Your task to perform on an android device: open app "Truecaller" (install if not already installed) and go to login screen Image 0: 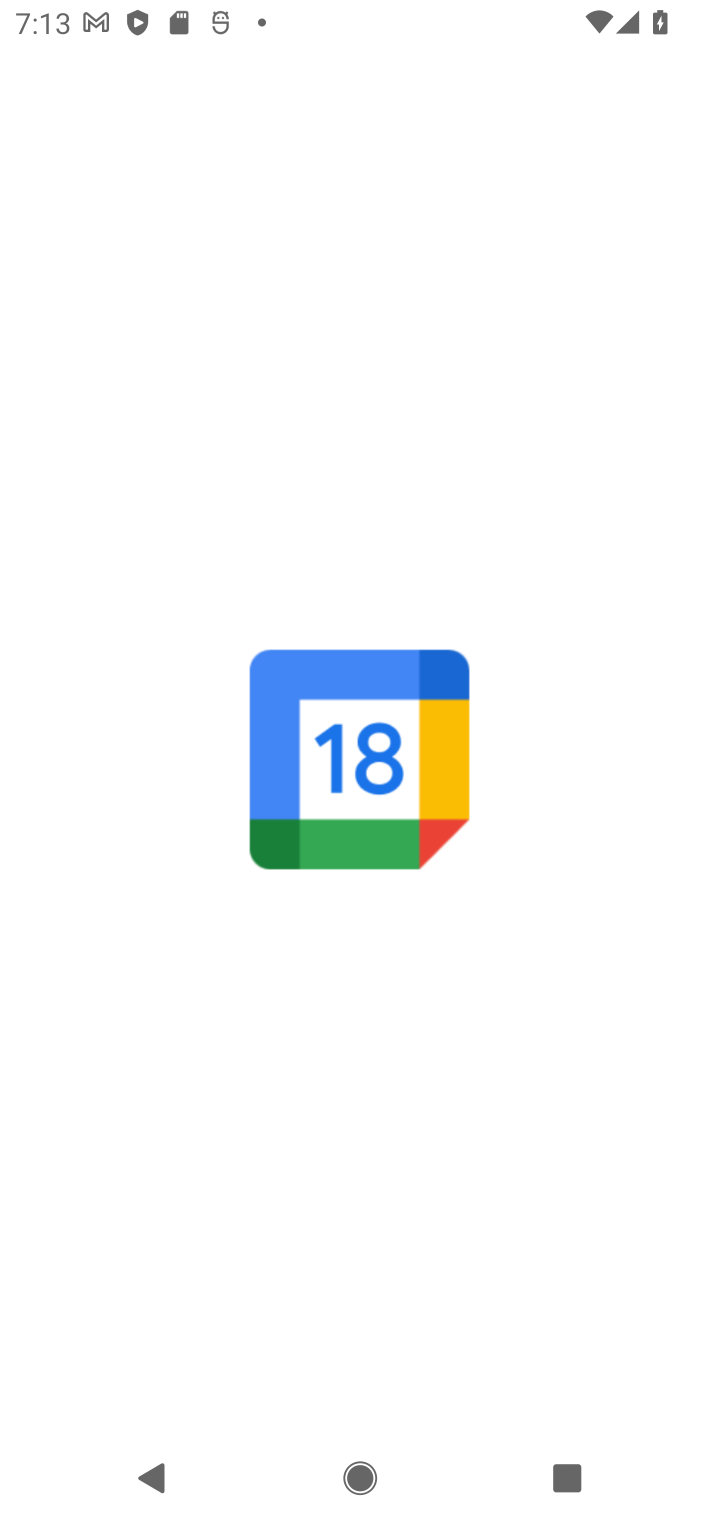
Step 0: press back button
Your task to perform on an android device: open app "Truecaller" (install if not already installed) and go to login screen Image 1: 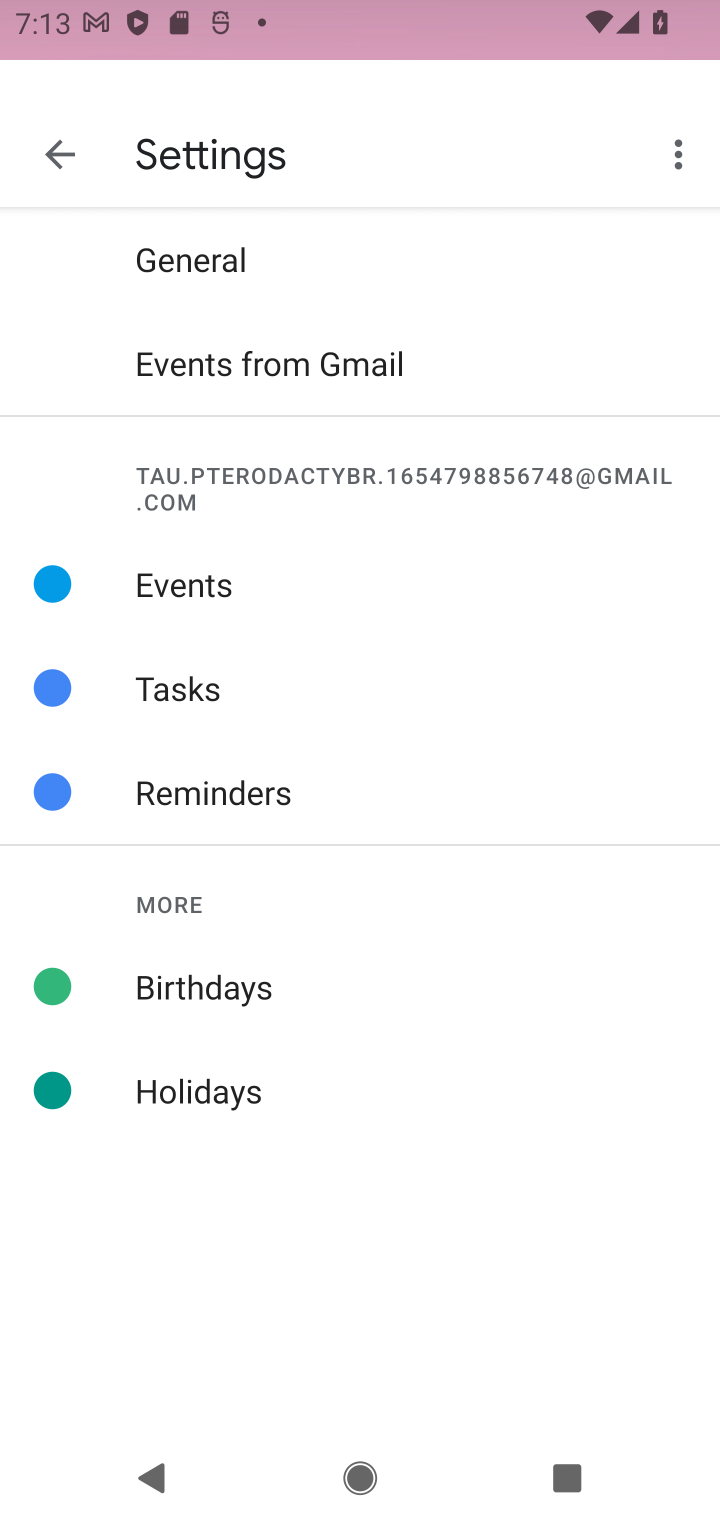
Step 1: press back button
Your task to perform on an android device: open app "Truecaller" (install if not already installed) and go to login screen Image 2: 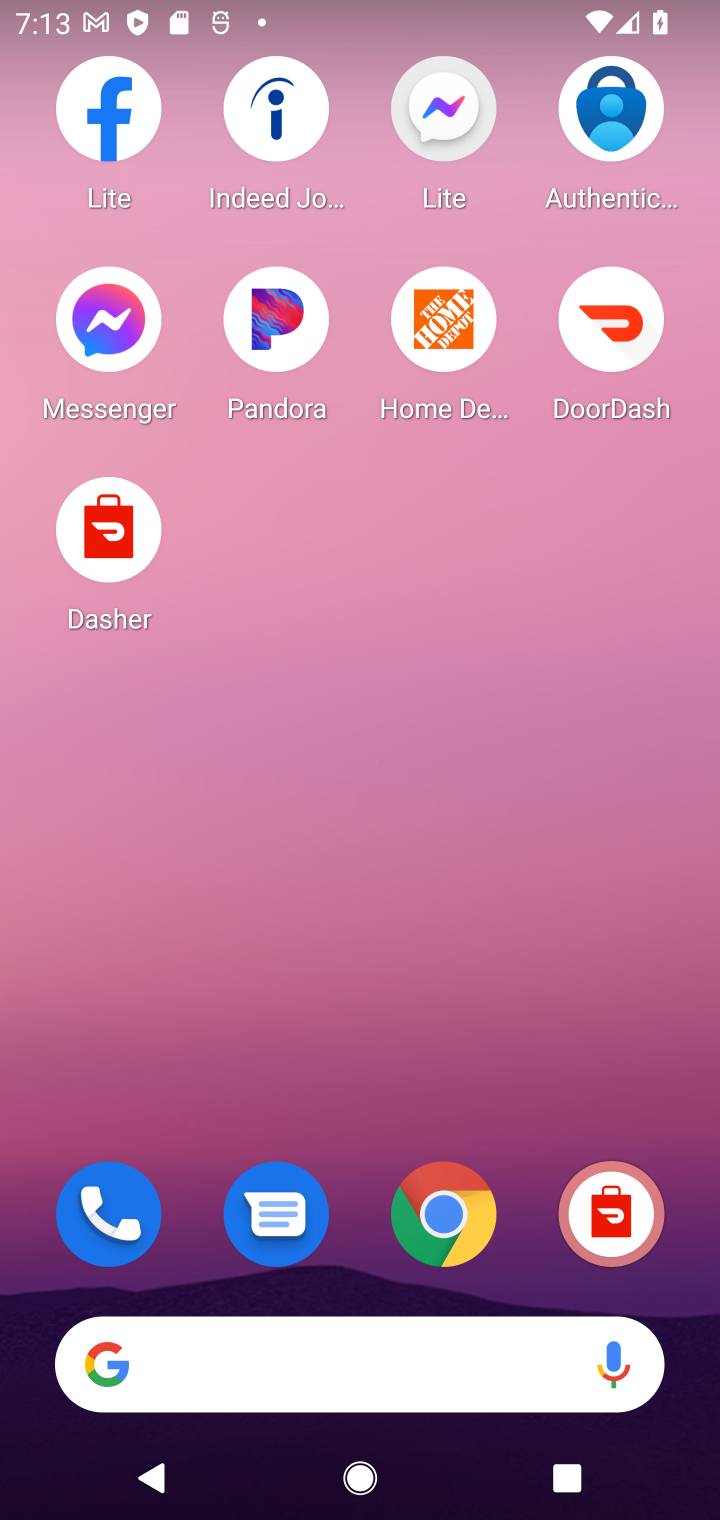
Step 2: drag from (368, 1034) to (333, 234)
Your task to perform on an android device: open app "Truecaller" (install if not already installed) and go to login screen Image 3: 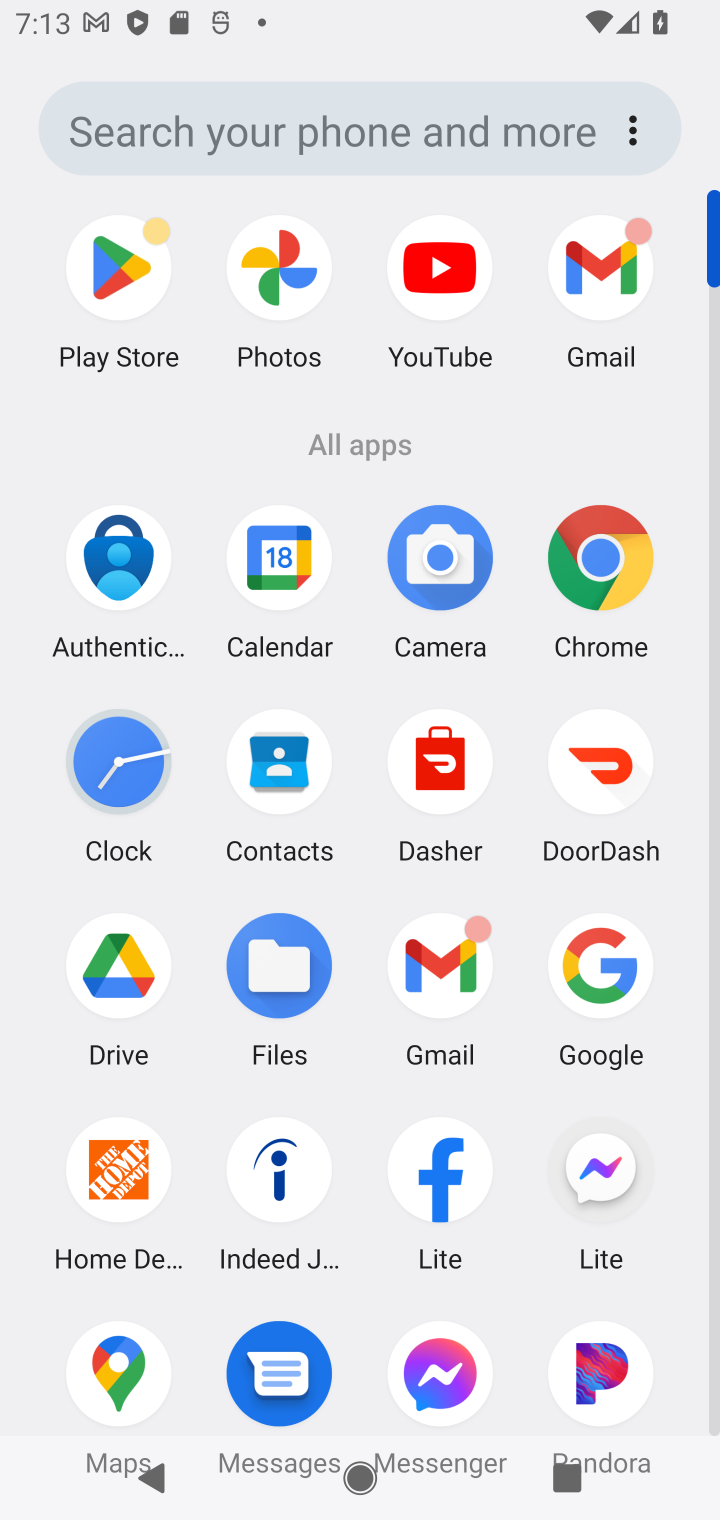
Step 3: click (124, 226)
Your task to perform on an android device: open app "Truecaller" (install if not already installed) and go to login screen Image 4: 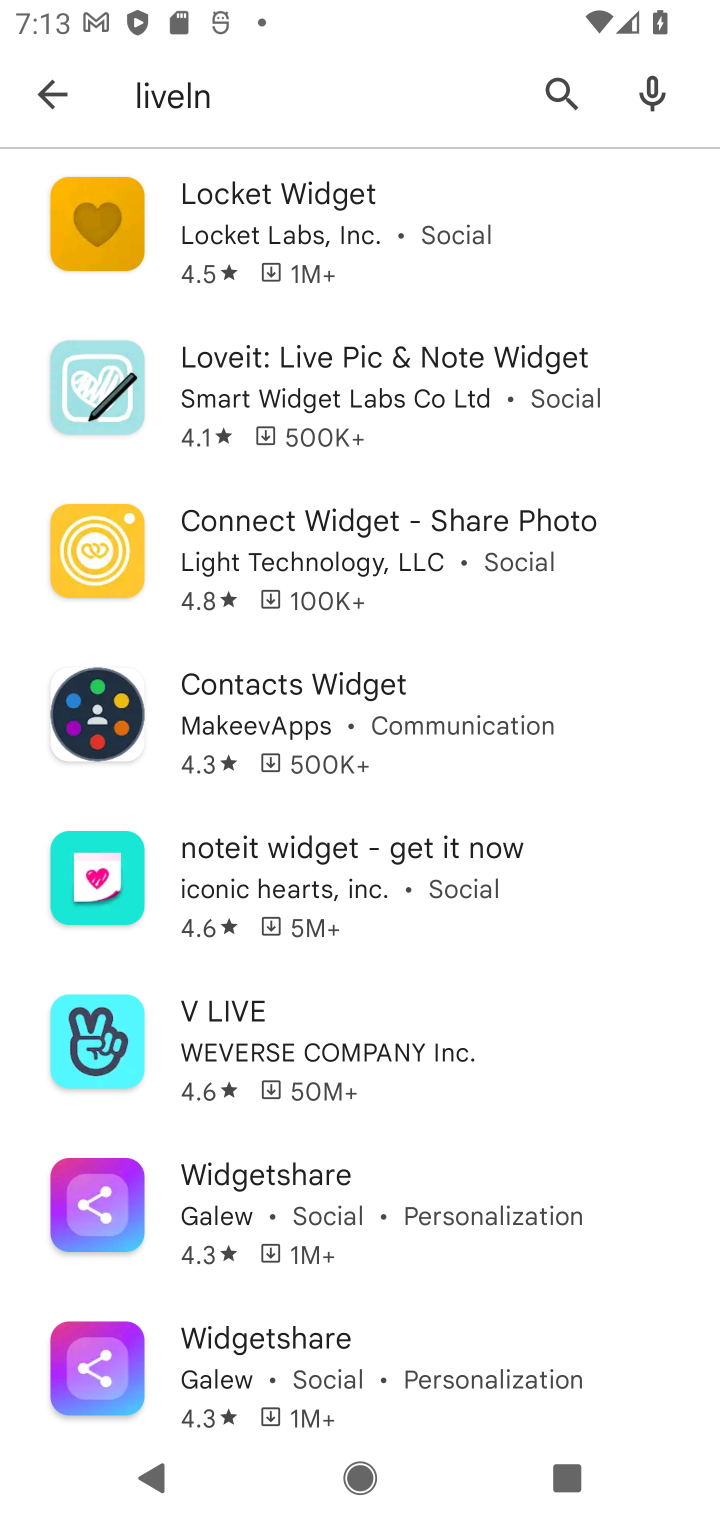
Step 4: click (569, 79)
Your task to perform on an android device: open app "Truecaller" (install if not already installed) and go to login screen Image 5: 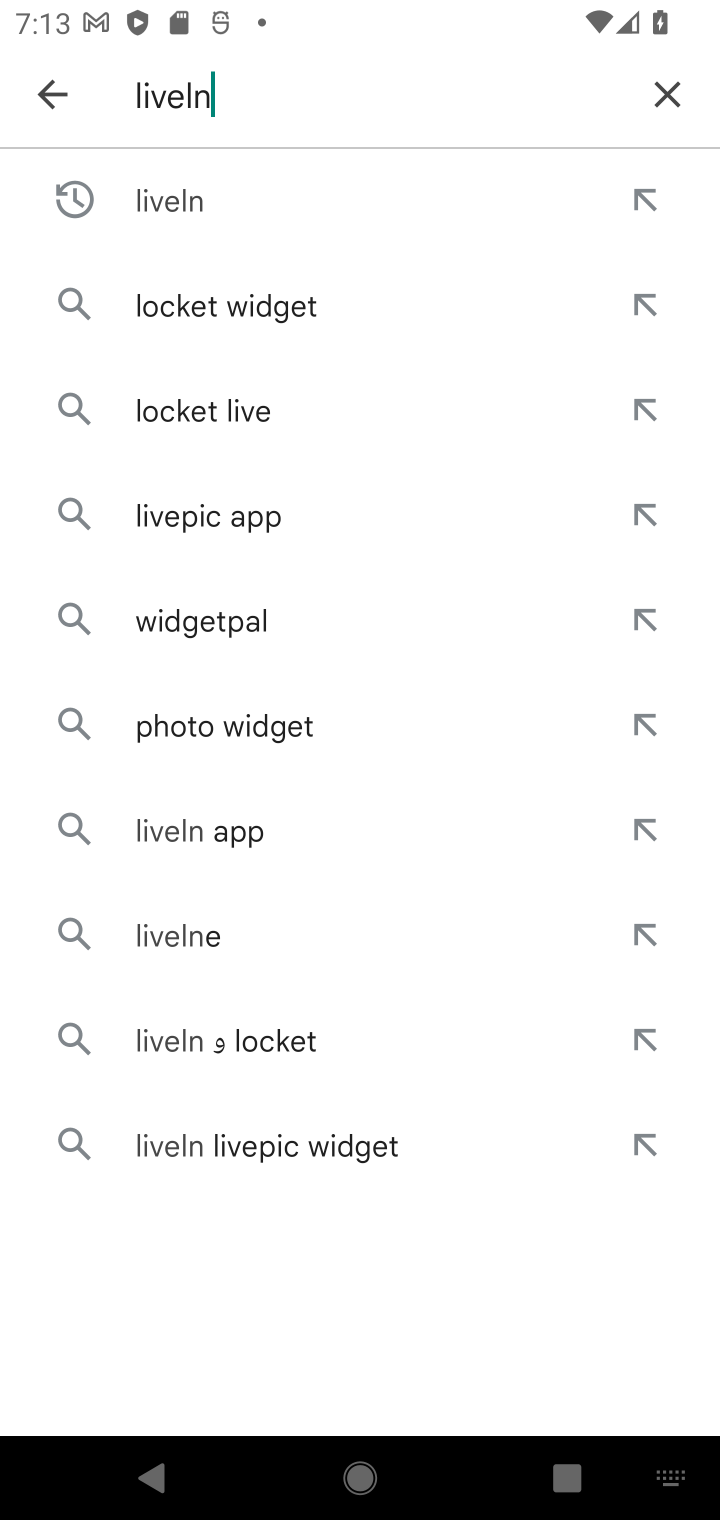
Step 5: click (665, 108)
Your task to perform on an android device: open app "Truecaller" (install if not already installed) and go to login screen Image 6: 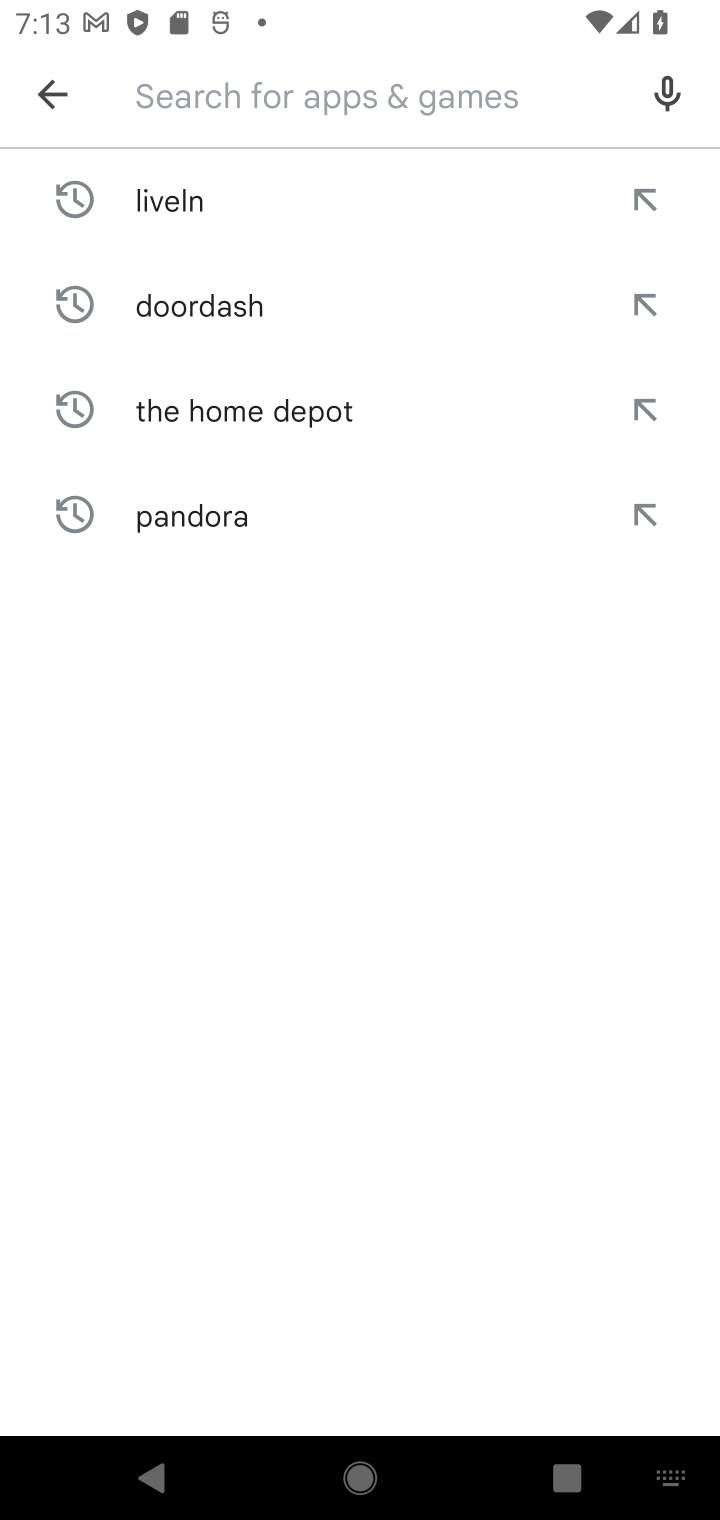
Step 6: click (426, 85)
Your task to perform on an android device: open app "Truecaller" (install if not already installed) and go to login screen Image 7: 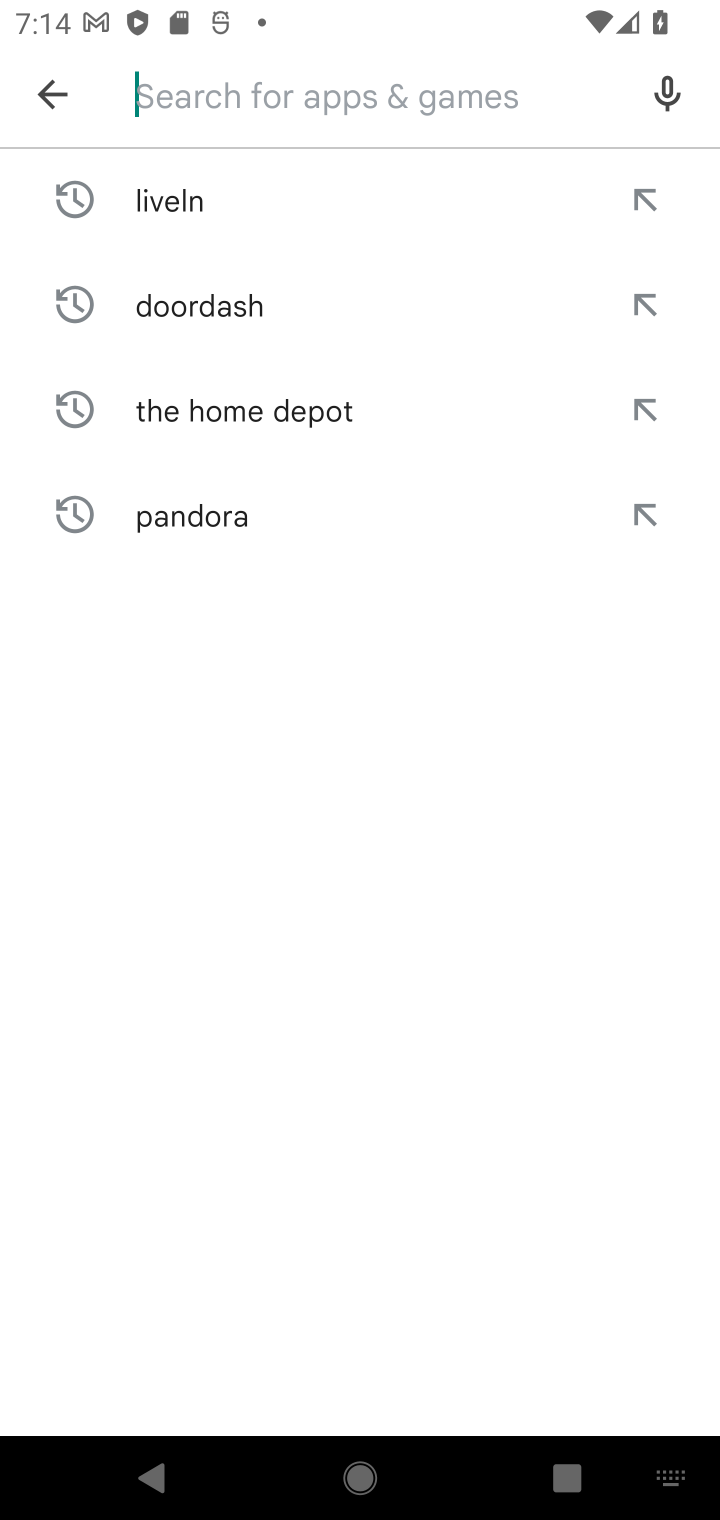
Step 7: type "truecaller"
Your task to perform on an android device: open app "Truecaller" (install if not already installed) and go to login screen Image 8: 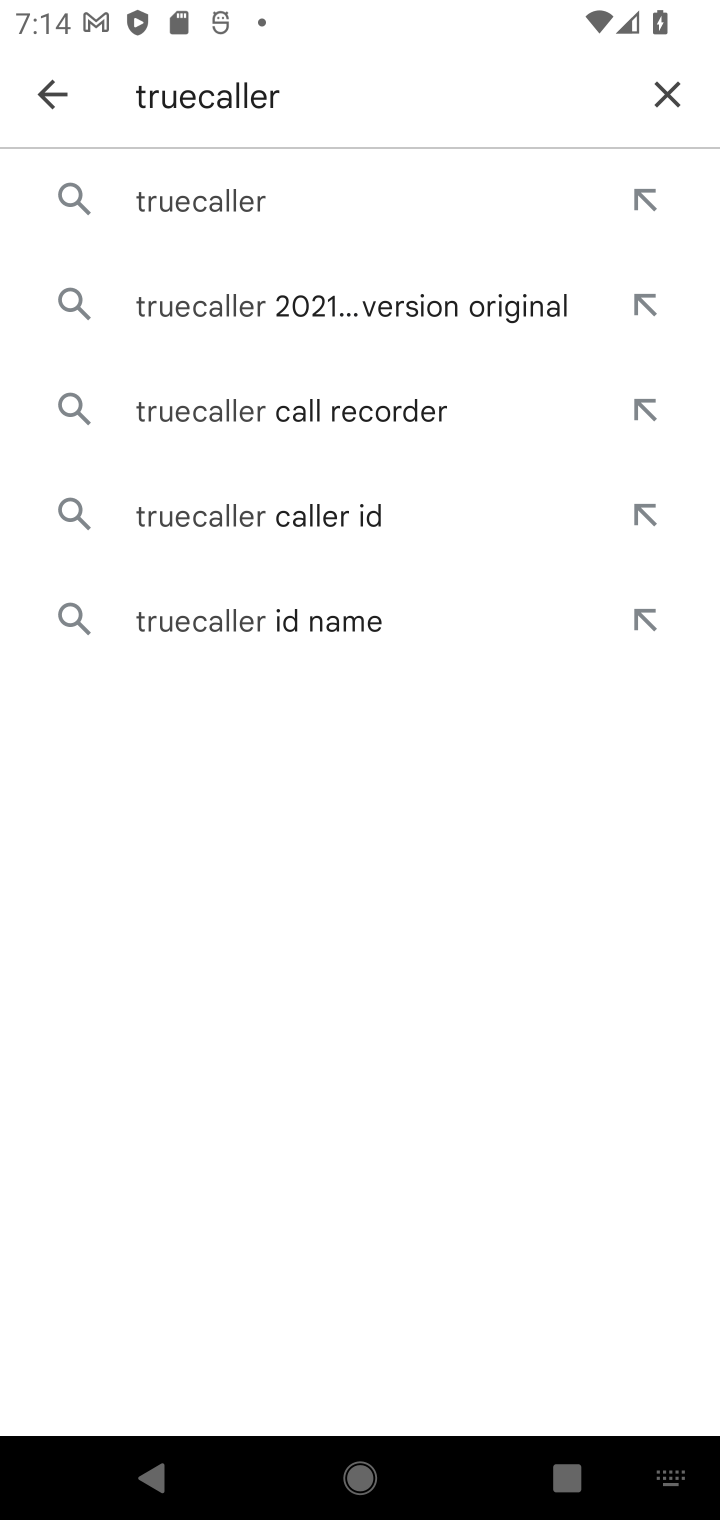
Step 8: click (243, 191)
Your task to perform on an android device: open app "Truecaller" (install if not already installed) and go to login screen Image 9: 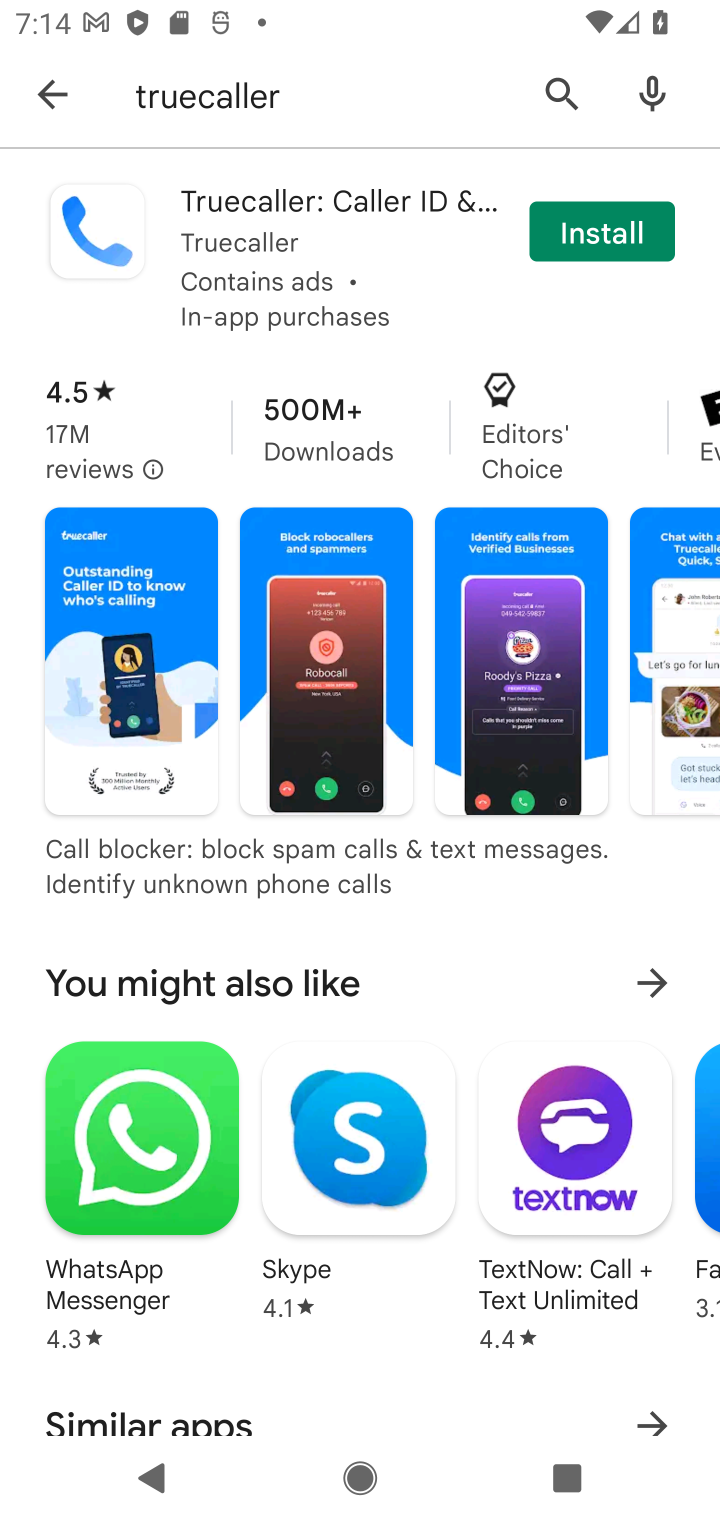
Step 9: click (593, 236)
Your task to perform on an android device: open app "Truecaller" (install if not already installed) and go to login screen Image 10: 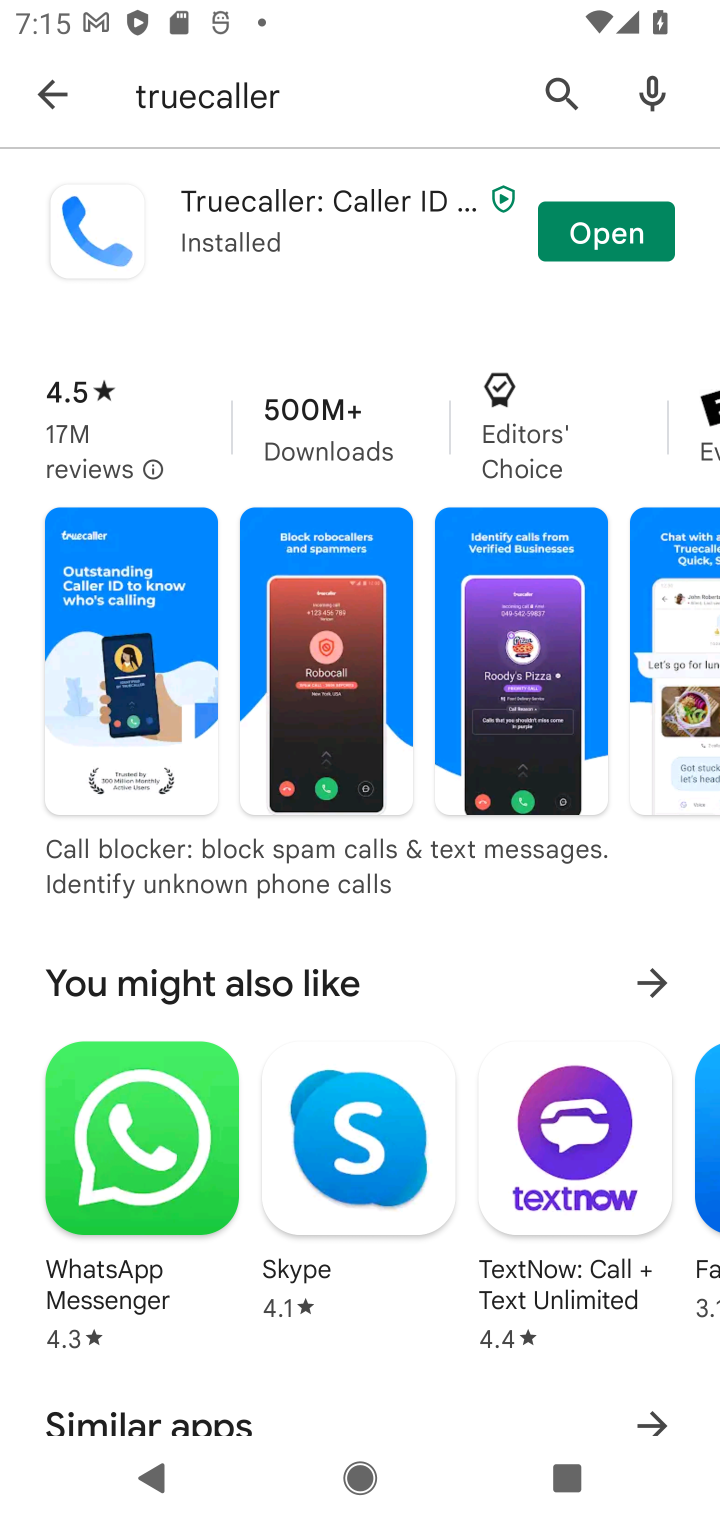
Step 10: click (638, 234)
Your task to perform on an android device: open app "Truecaller" (install if not already installed) and go to login screen Image 11: 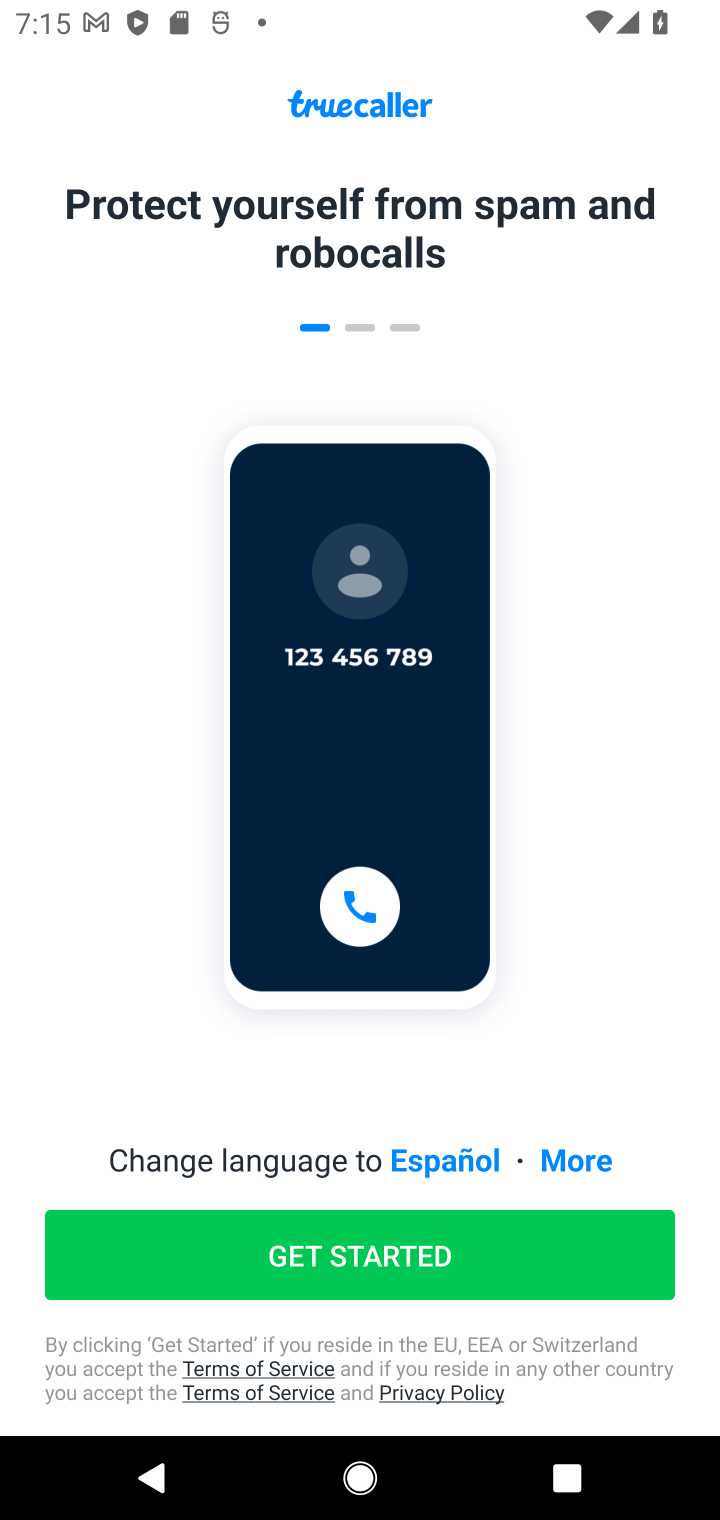
Step 11: drag from (595, 405) to (116, 497)
Your task to perform on an android device: open app "Truecaller" (install if not already installed) and go to login screen Image 12: 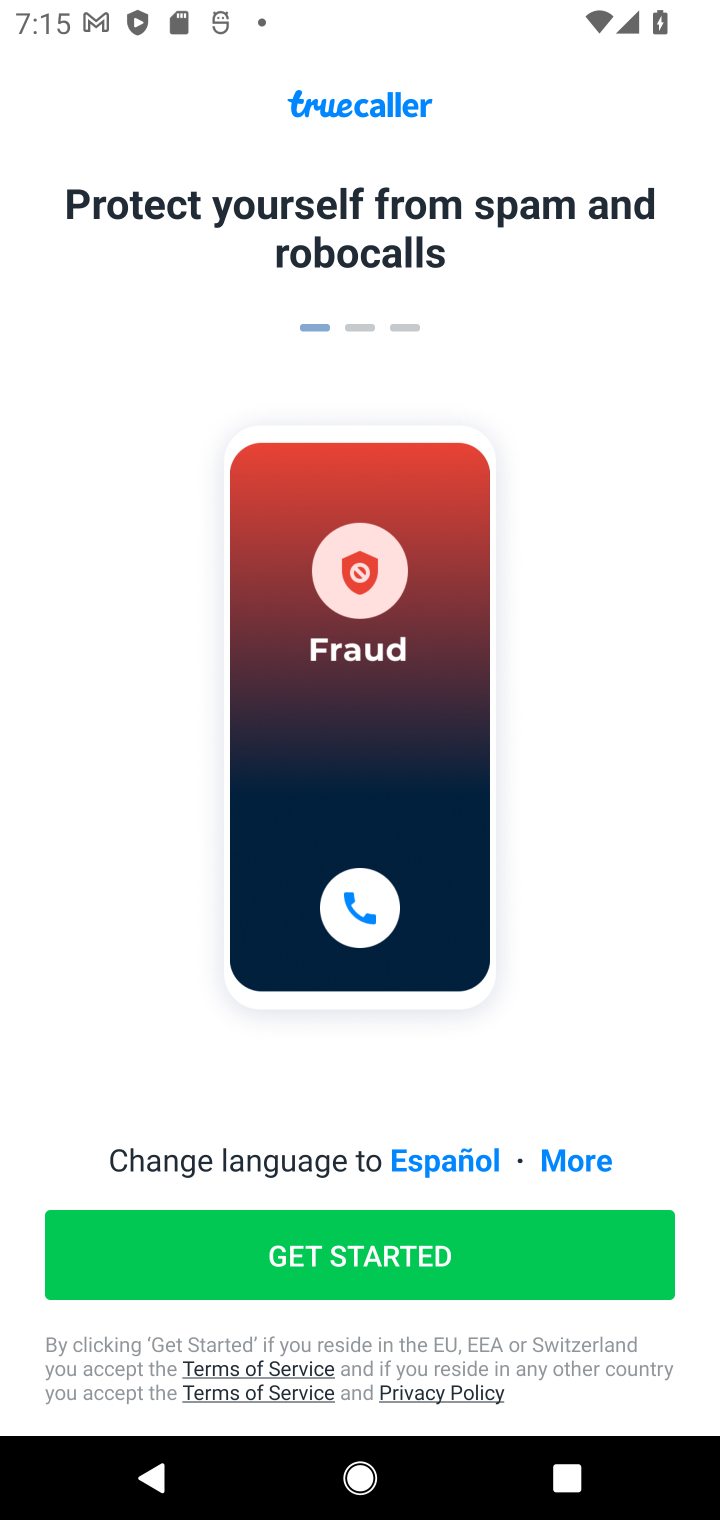
Step 12: click (450, 1281)
Your task to perform on an android device: open app "Truecaller" (install if not already installed) and go to login screen Image 13: 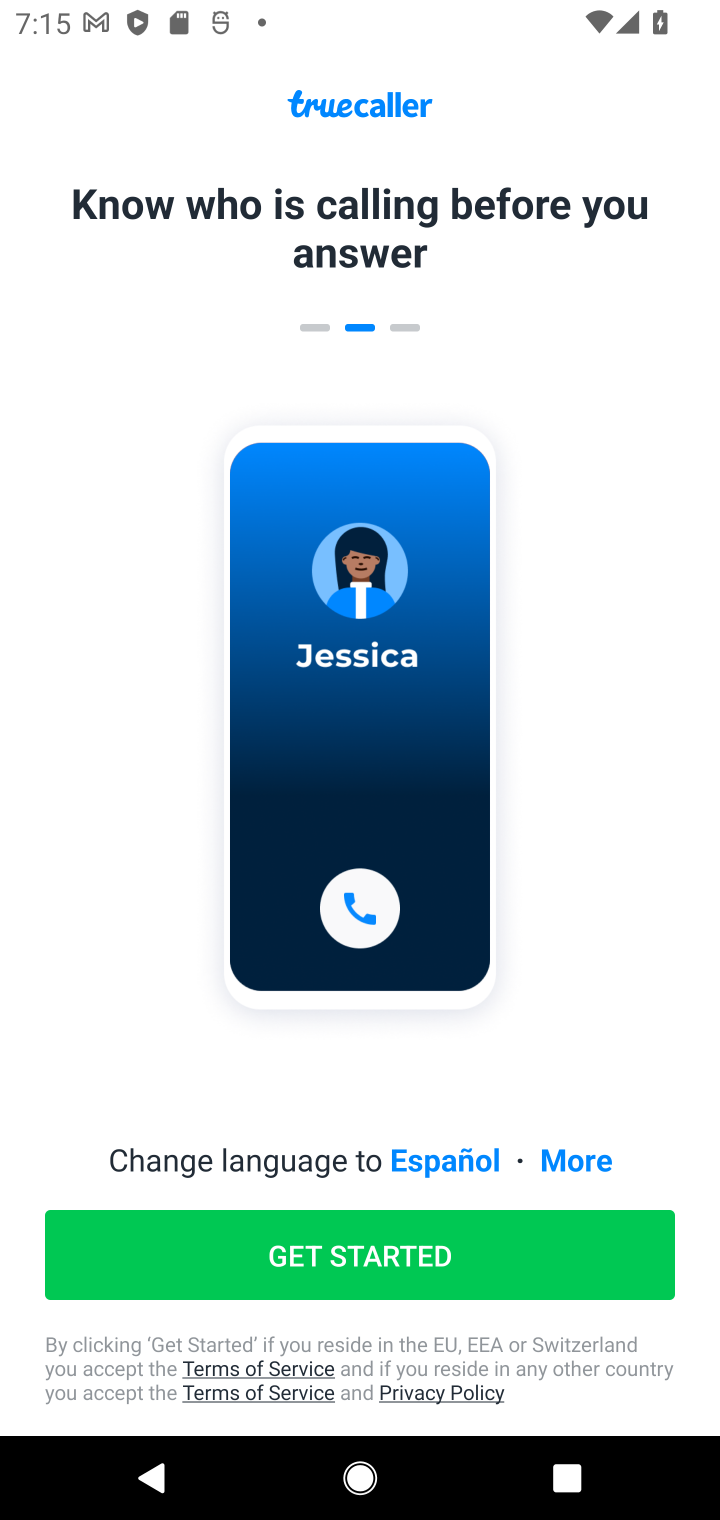
Step 13: click (451, 1255)
Your task to perform on an android device: open app "Truecaller" (install if not already installed) and go to login screen Image 14: 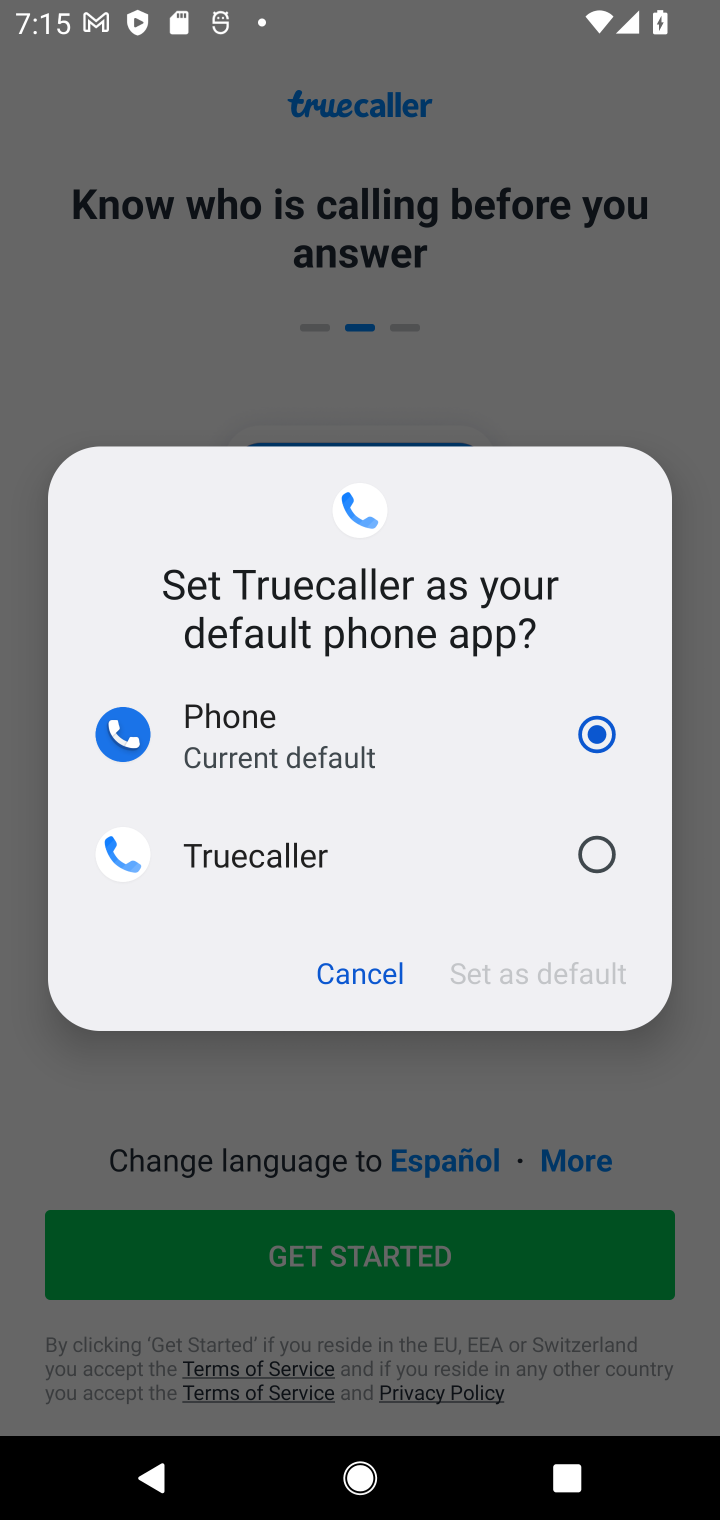
Step 14: click (357, 979)
Your task to perform on an android device: open app "Truecaller" (install if not already installed) and go to login screen Image 15: 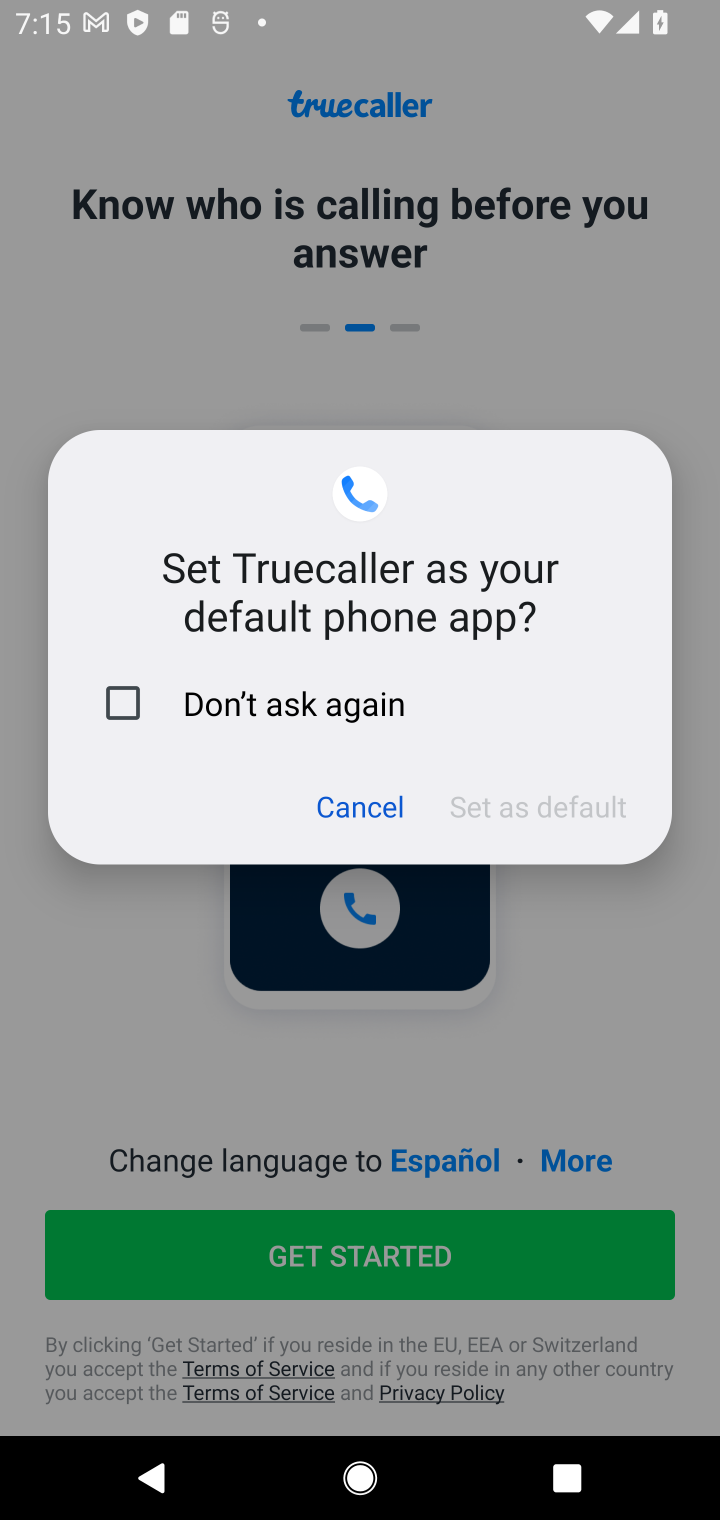
Step 15: click (513, 1252)
Your task to perform on an android device: open app "Truecaller" (install if not already installed) and go to login screen Image 16: 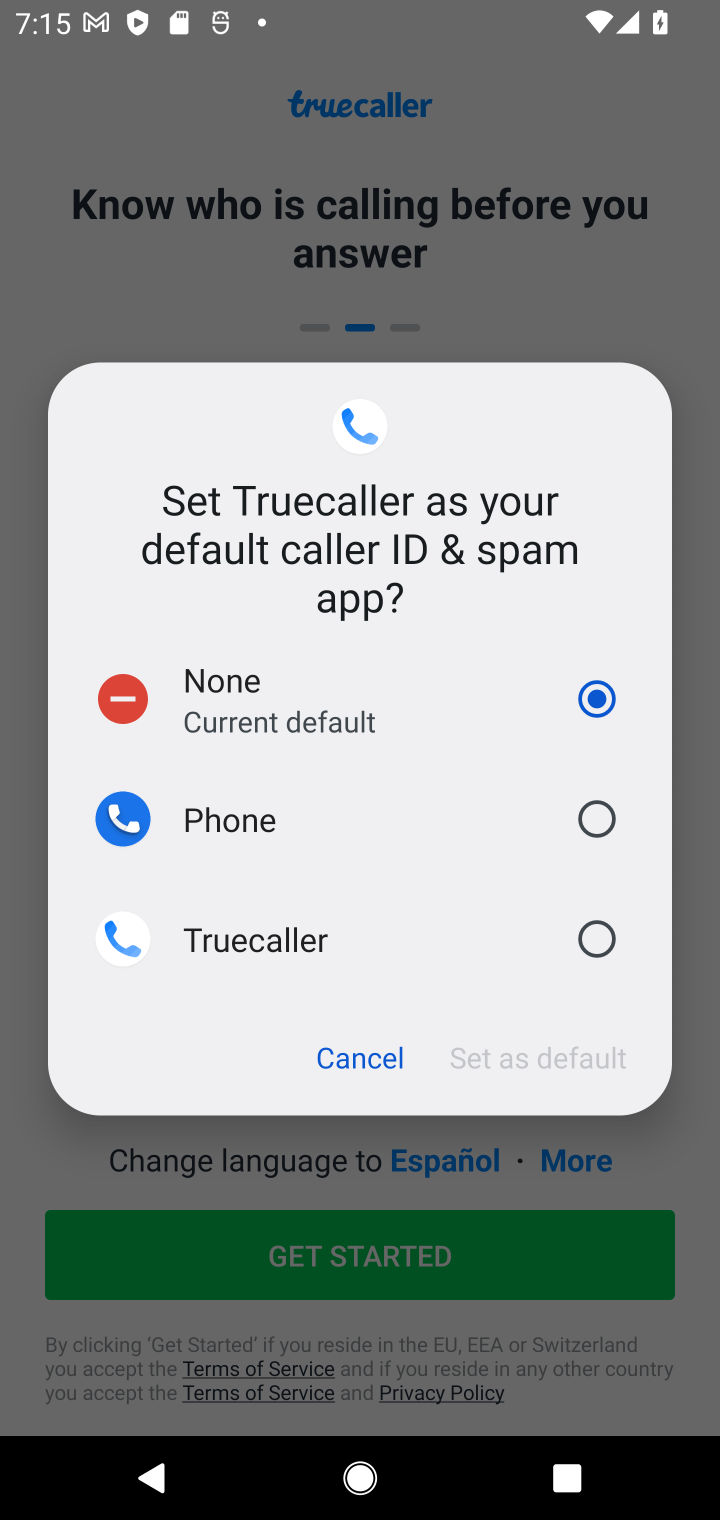
Step 16: click (335, 1258)
Your task to perform on an android device: open app "Truecaller" (install if not already installed) and go to login screen Image 17: 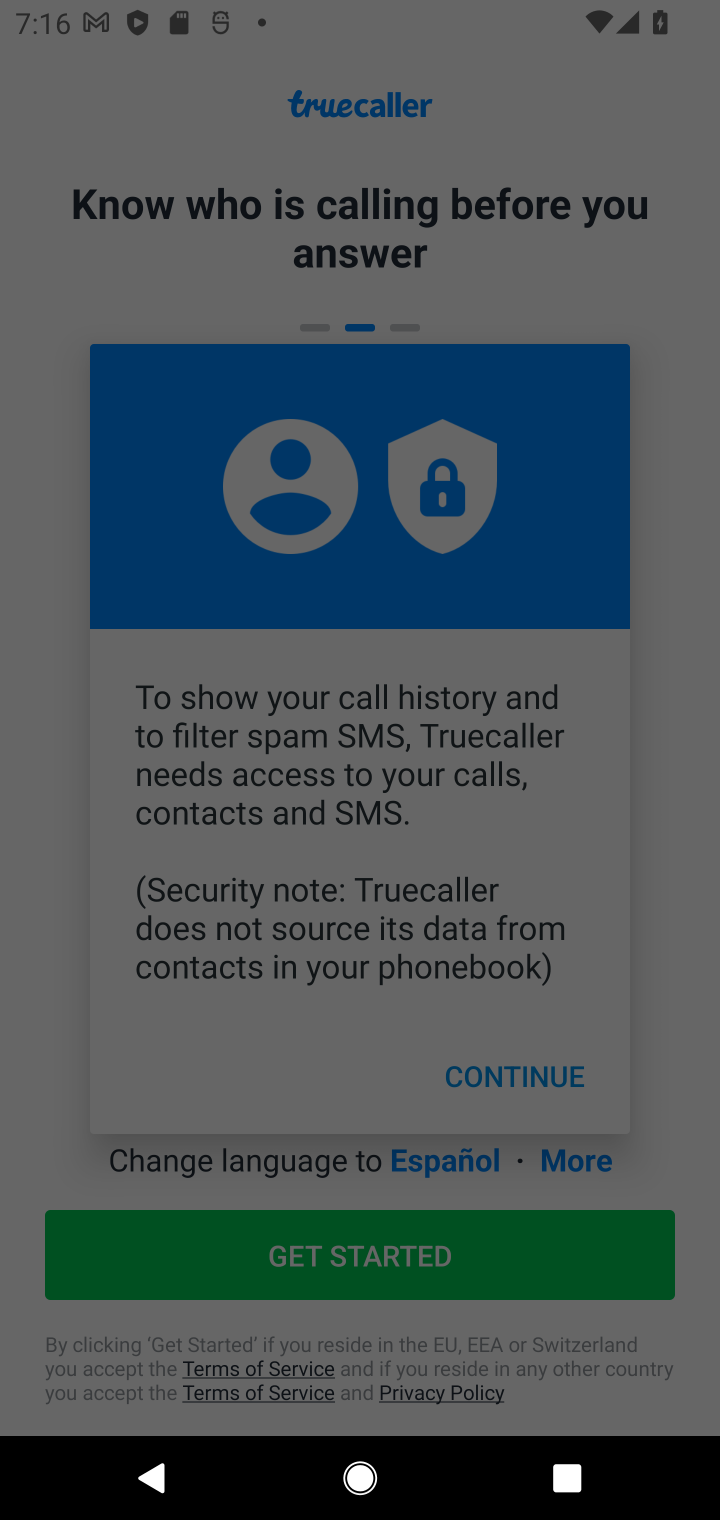
Step 17: click (509, 1060)
Your task to perform on an android device: open app "Truecaller" (install if not already installed) and go to login screen Image 18: 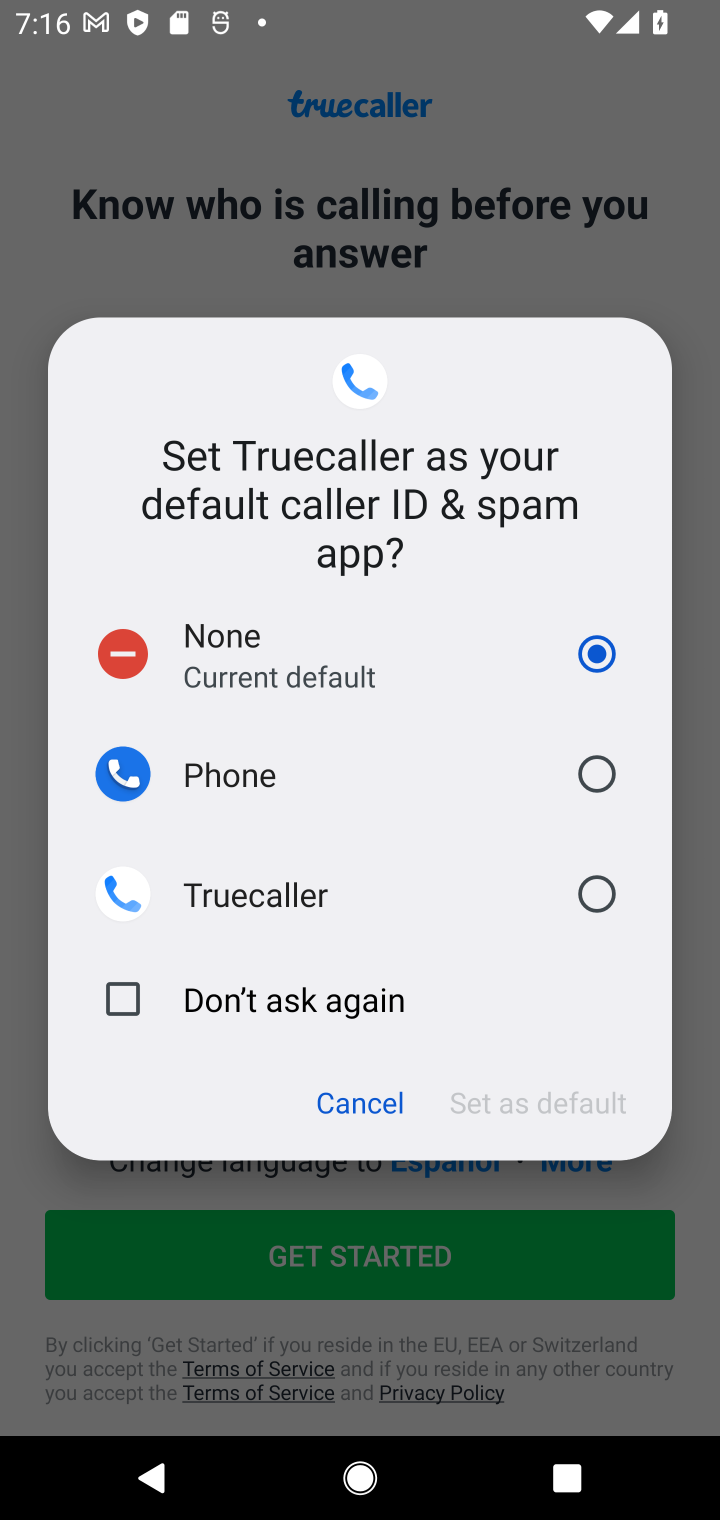
Step 18: click (380, 1093)
Your task to perform on an android device: open app "Truecaller" (install if not already installed) and go to login screen Image 19: 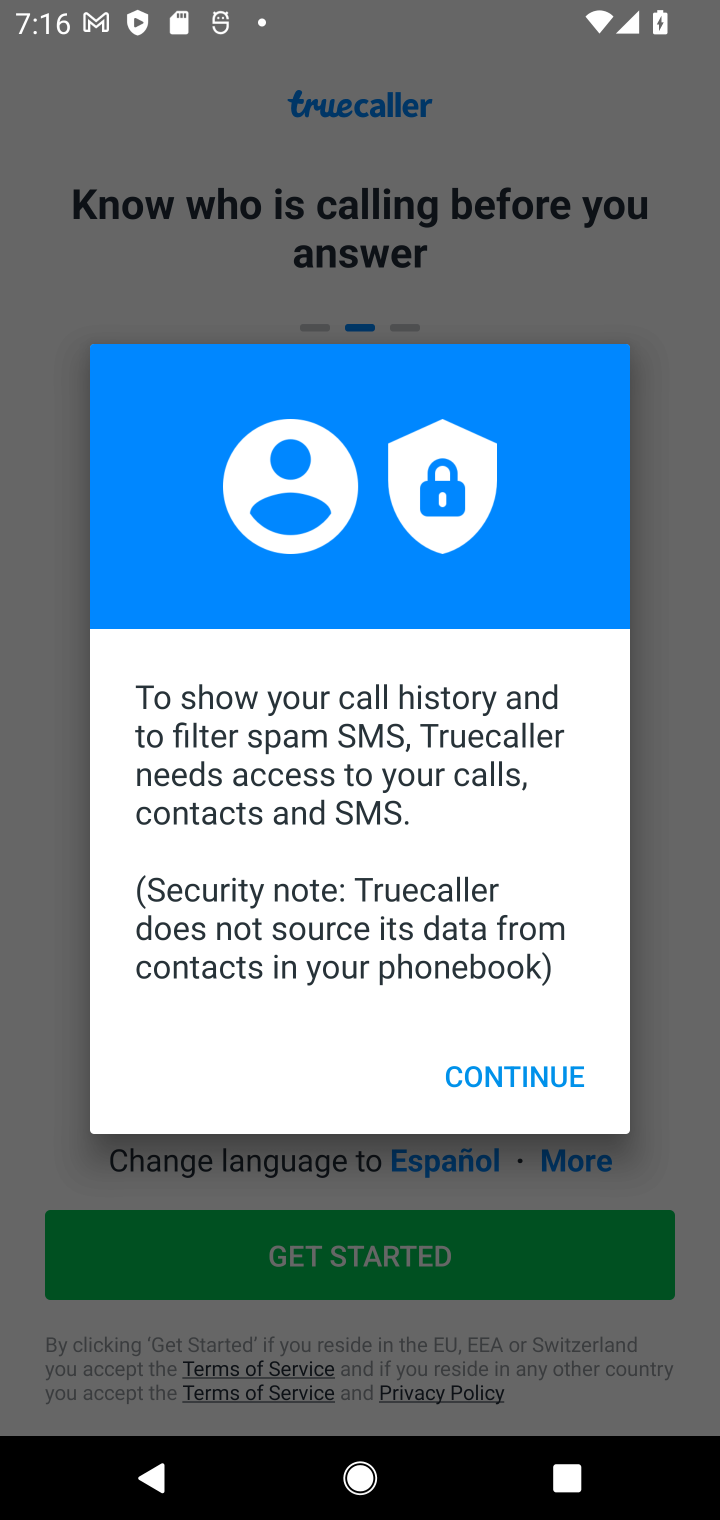
Step 19: click (582, 1085)
Your task to perform on an android device: open app "Truecaller" (install if not already installed) and go to login screen Image 20: 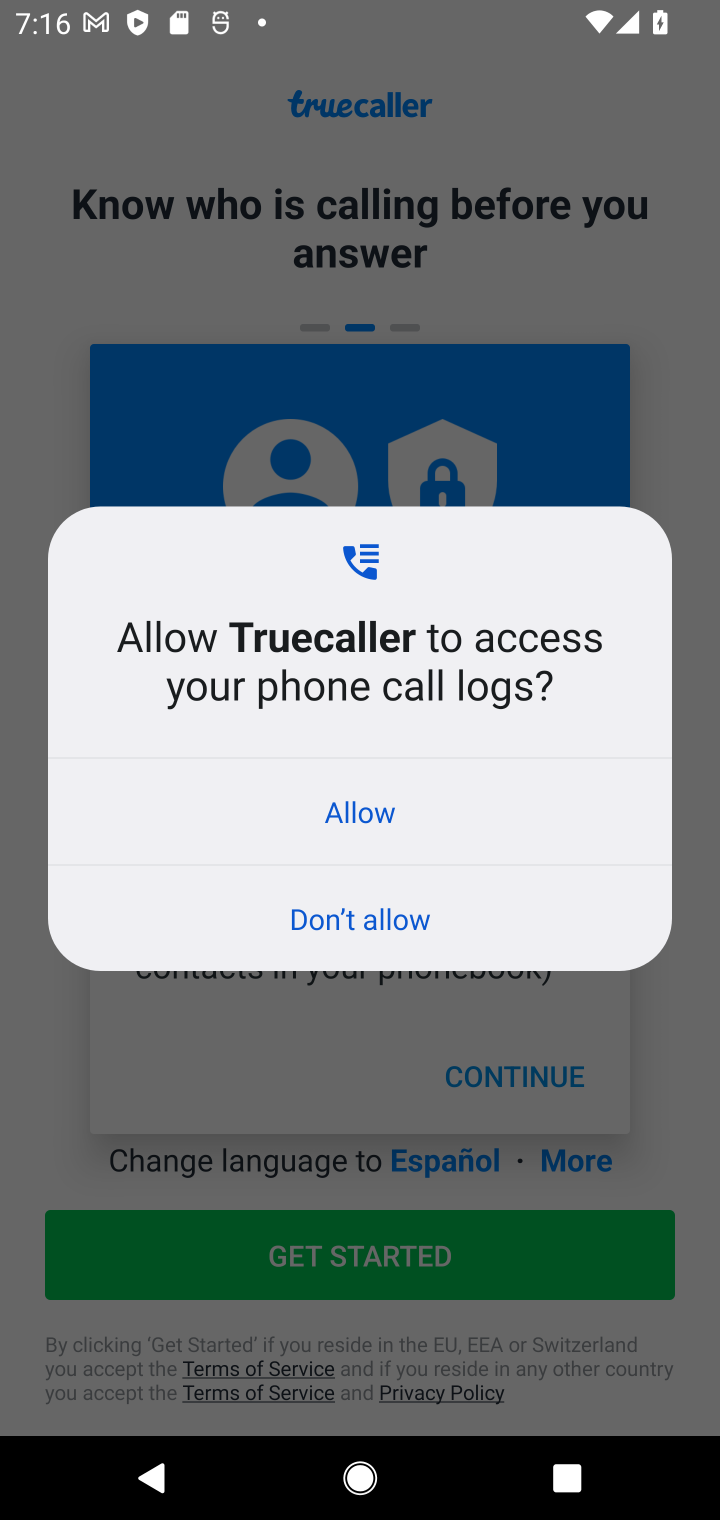
Step 20: click (393, 810)
Your task to perform on an android device: open app "Truecaller" (install if not already installed) and go to login screen Image 21: 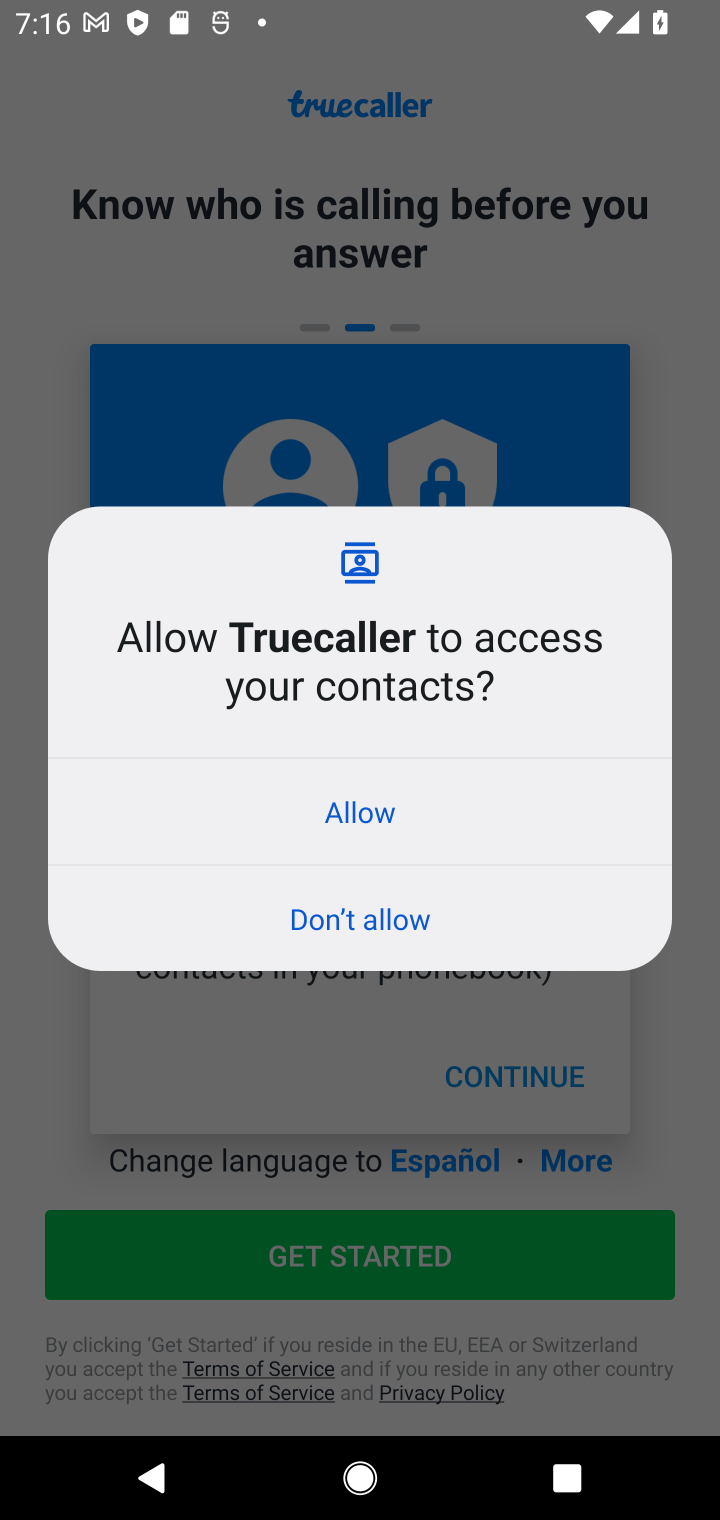
Step 21: click (368, 815)
Your task to perform on an android device: open app "Truecaller" (install if not already installed) and go to login screen Image 22: 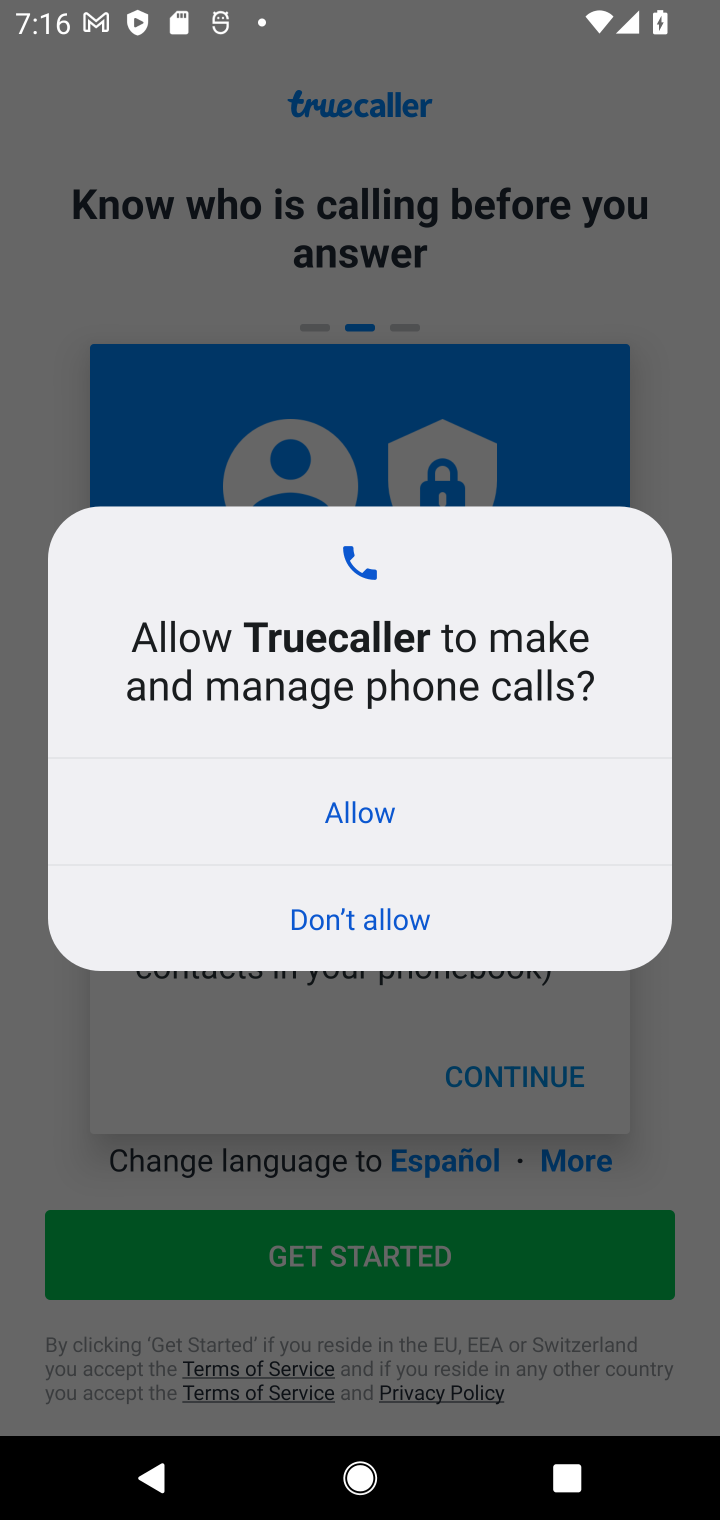
Step 22: click (368, 812)
Your task to perform on an android device: open app "Truecaller" (install if not already installed) and go to login screen Image 23: 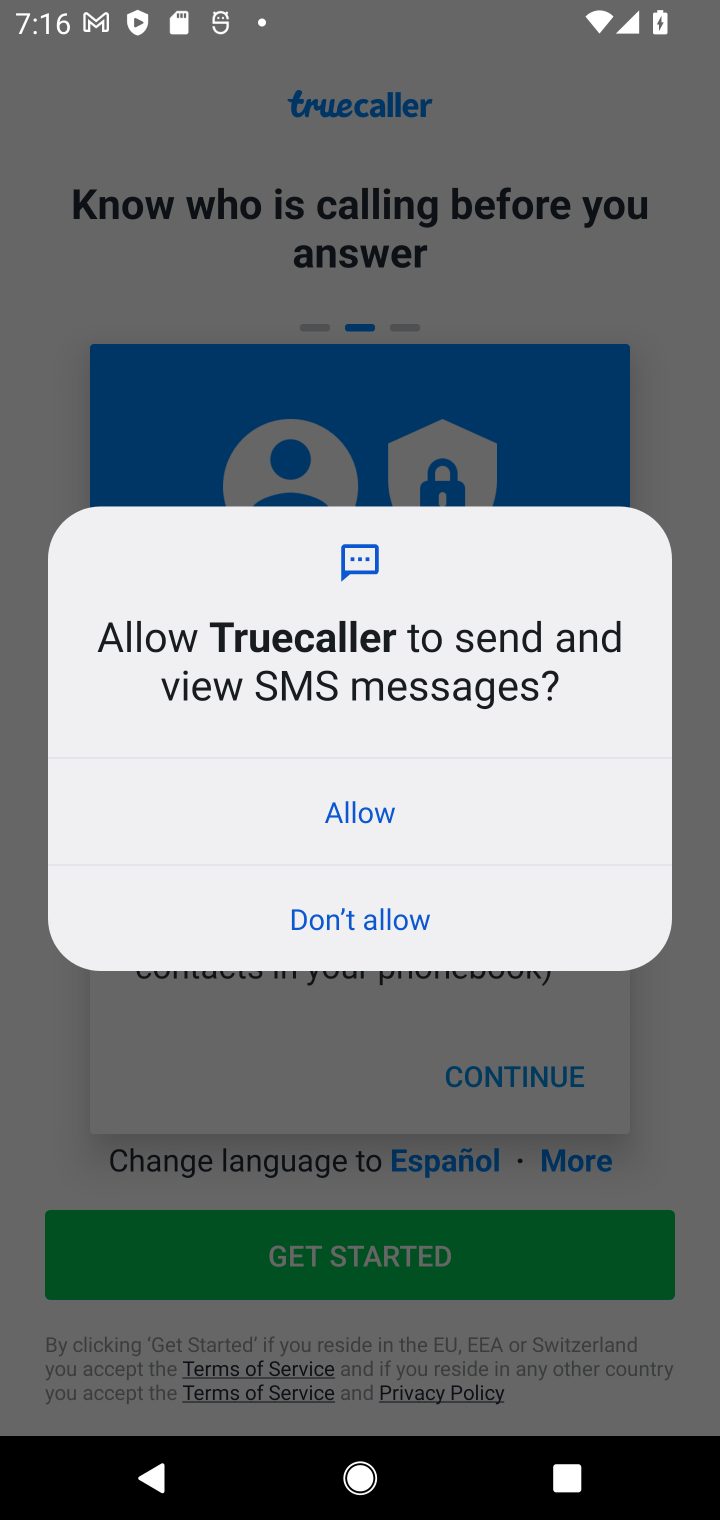
Step 23: click (370, 810)
Your task to perform on an android device: open app "Truecaller" (install if not already installed) and go to login screen Image 24: 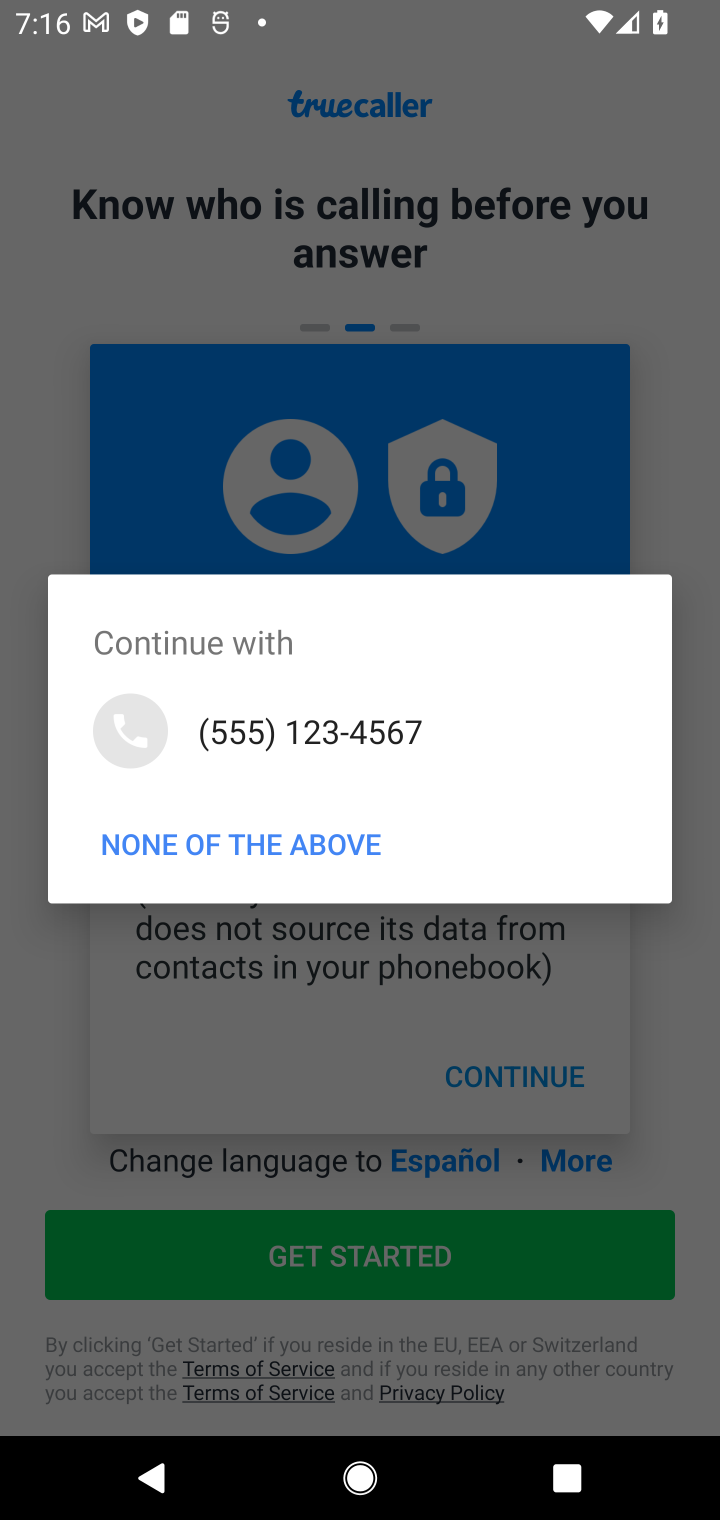
Step 24: click (197, 841)
Your task to perform on an android device: open app "Truecaller" (install if not already installed) and go to login screen Image 25: 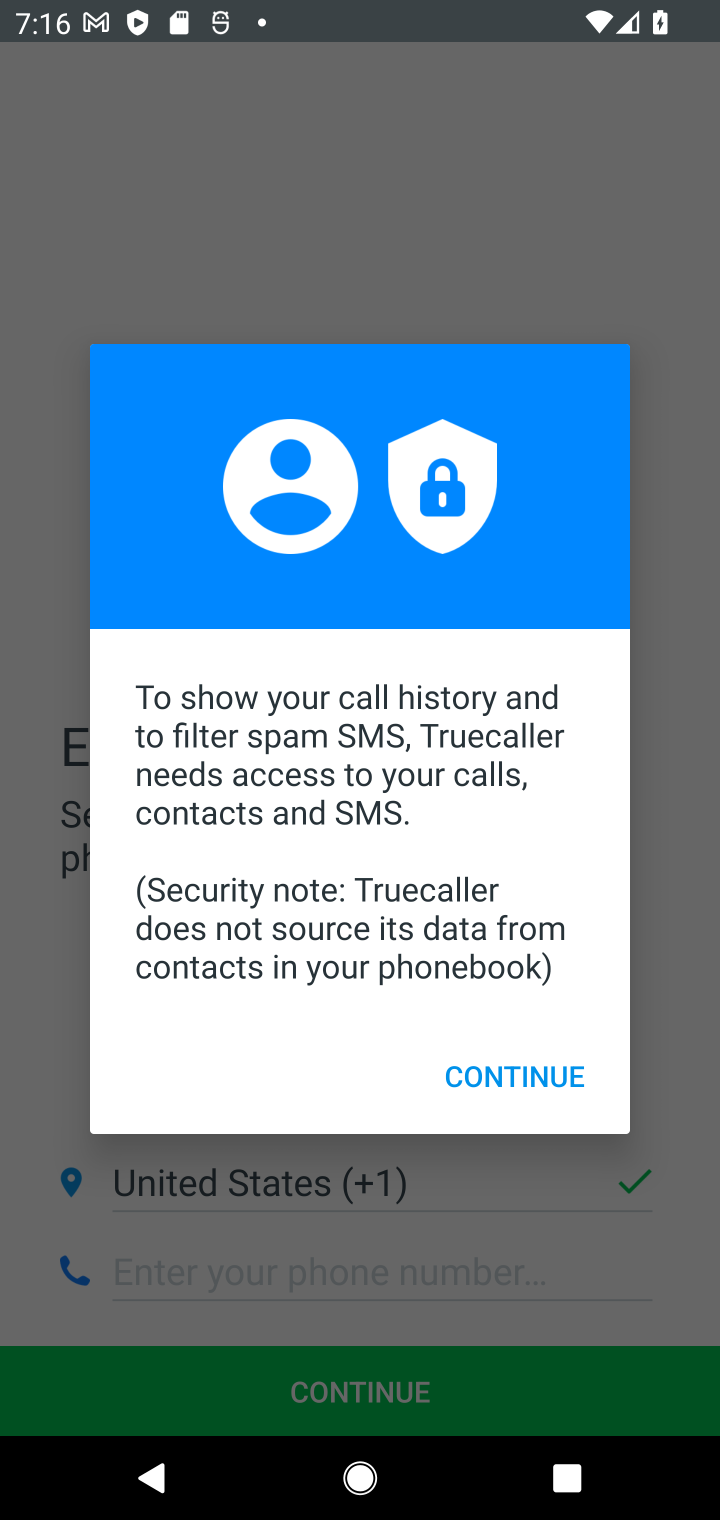
Step 25: click (484, 1078)
Your task to perform on an android device: open app "Truecaller" (install if not already installed) and go to login screen Image 26: 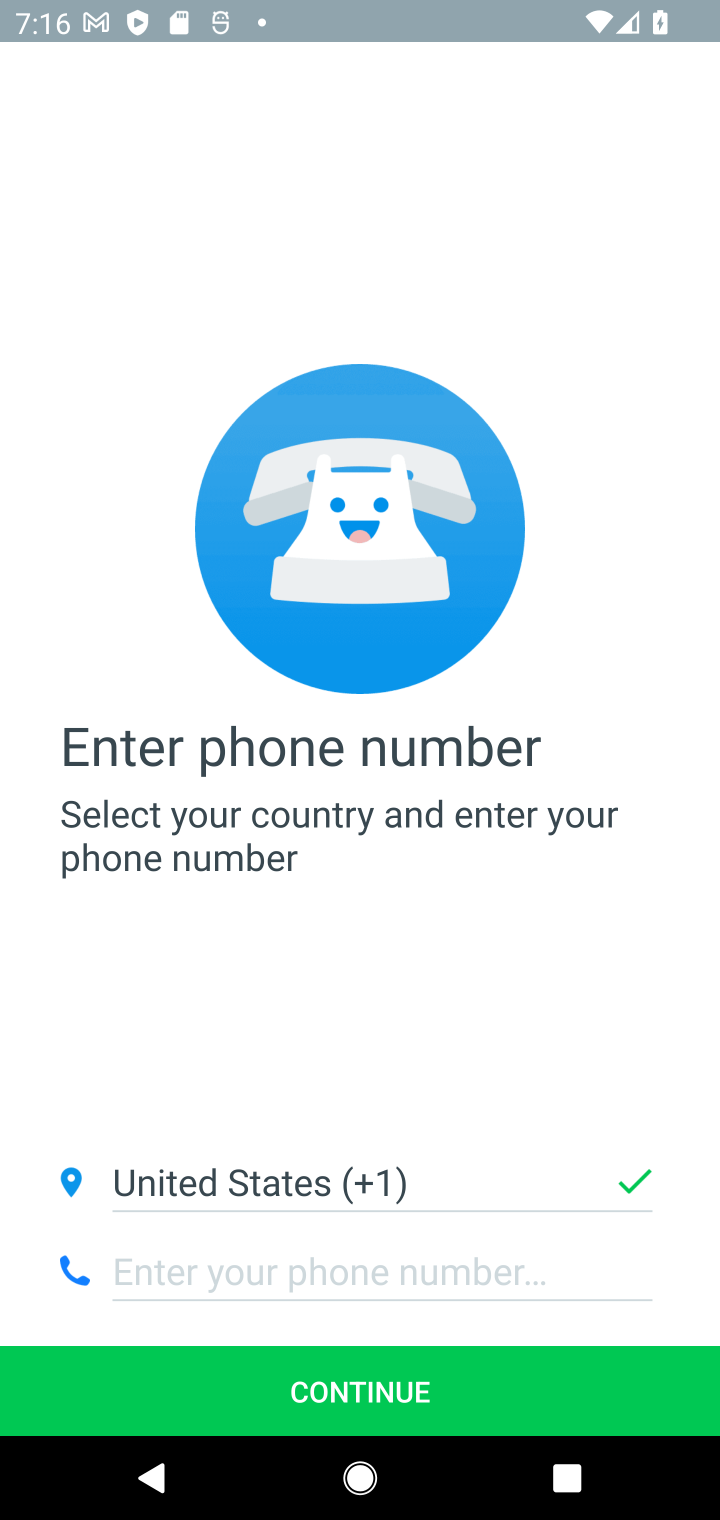
Step 26: task complete